Your task to perform on an android device: Open privacy settings Image 0: 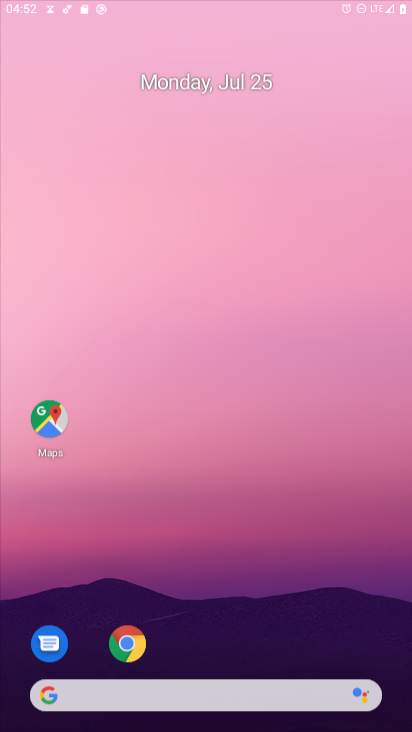
Step 0: press home button
Your task to perform on an android device: Open privacy settings Image 1: 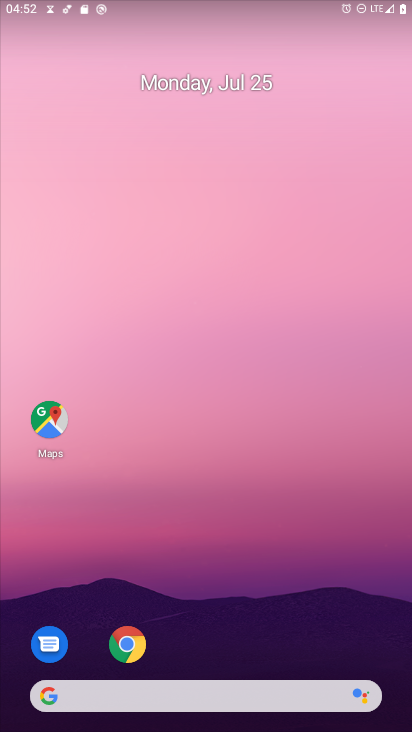
Step 1: drag from (243, 630) to (262, 129)
Your task to perform on an android device: Open privacy settings Image 2: 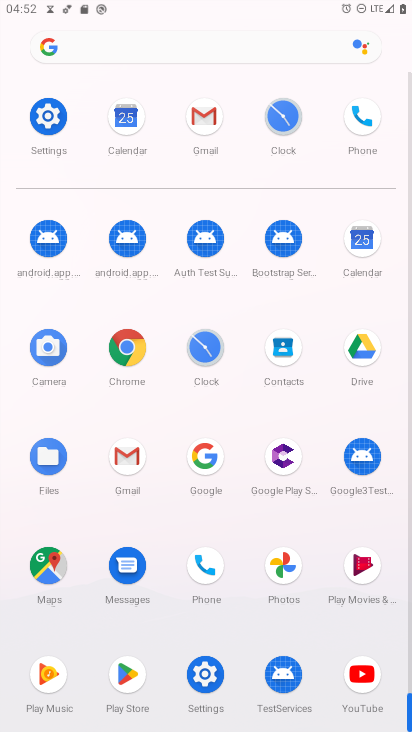
Step 2: click (50, 115)
Your task to perform on an android device: Open privacy settings Image 3: 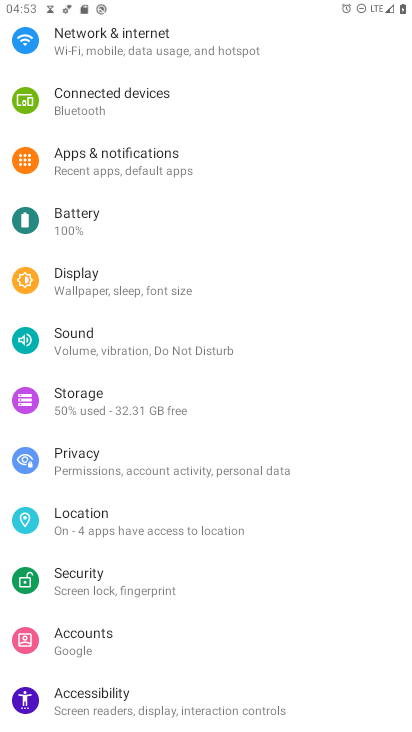
Step 3: click (83, 464)
Your task to perform on an android device: Open privacy settings Image 4: 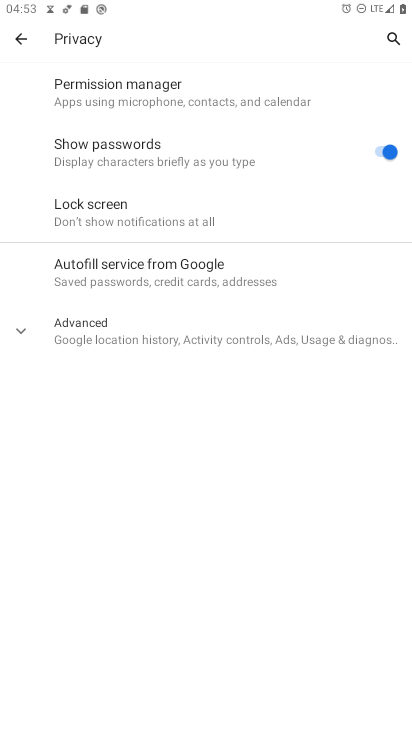
Step 4: task complete